Your task to perform on an android device: Search for a sofa on article.com Image 0: 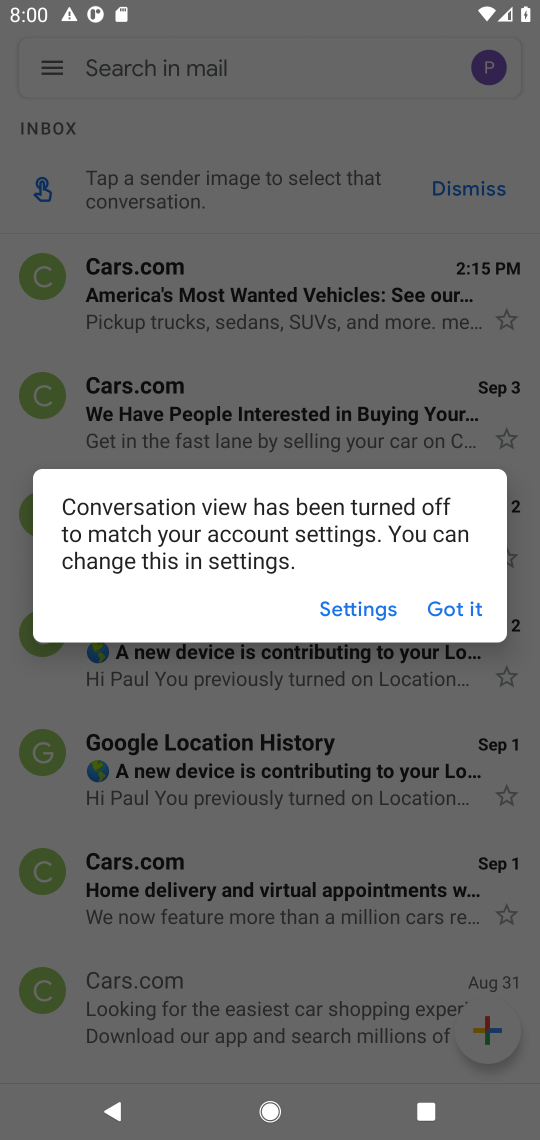
Step 0: click (403, 624)
Your task to perform on an android device: Search for a sofa on article.com Image 1: 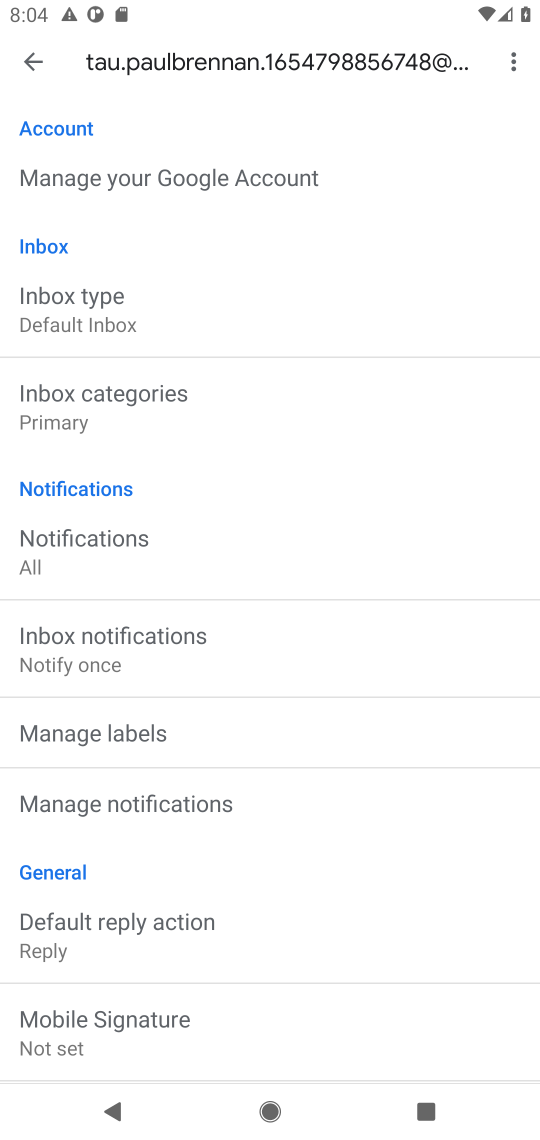
Step 1: task complete